Your task to perform on an android device: see creations saved in the google photos Image 0: 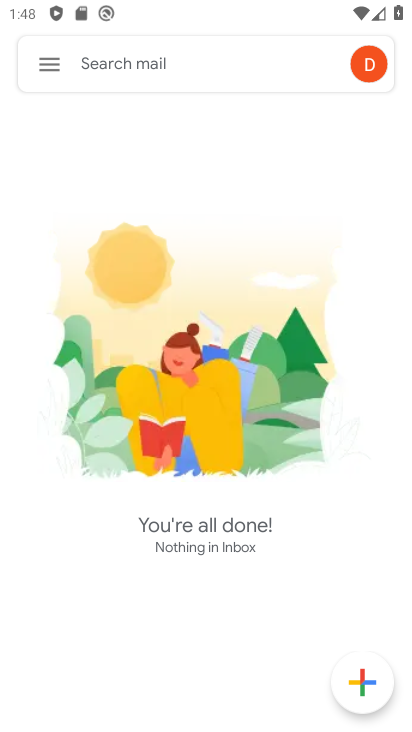
Step 0: press home button
Your task to perform on an android device: see creations saved in the google photos Image 1: 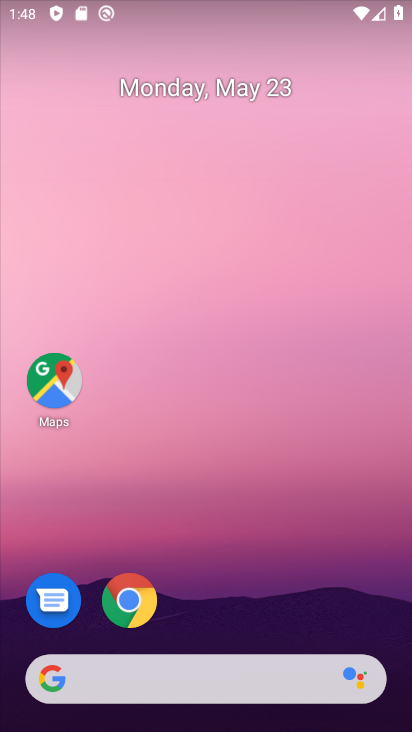
Step 1: drag from (281, 619) to (283, 268)
Your task to perform on an android device: see creations saved in the google photos Image 2: 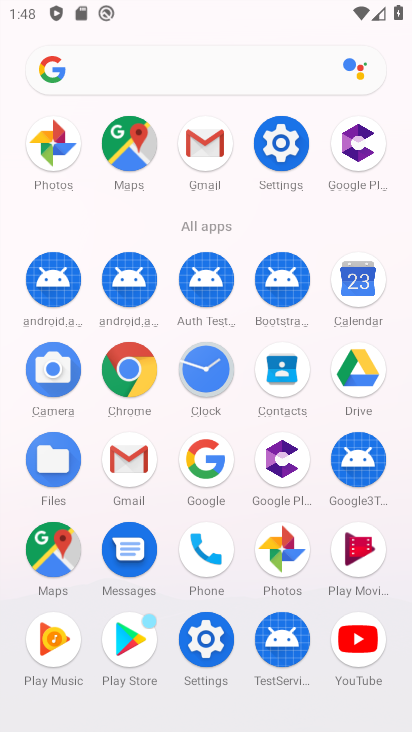
Step 2: click (291, 541)
Your task to perform on an android device: see creations saved in the google photos Image 3: 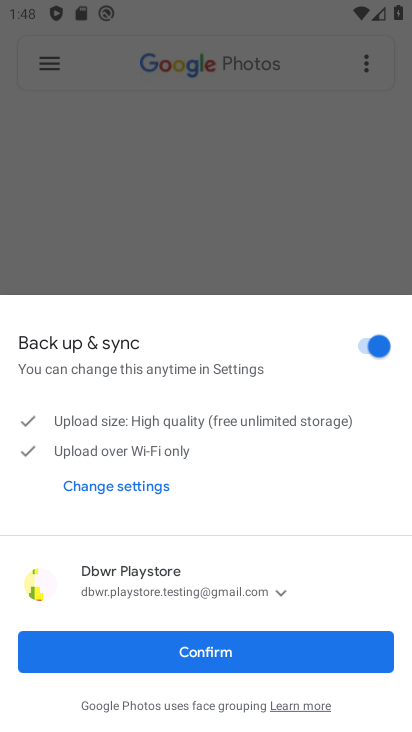
Step 3: click (283, 659)
Your task to perform on an android device: see creations saved in the google photos Image 4: 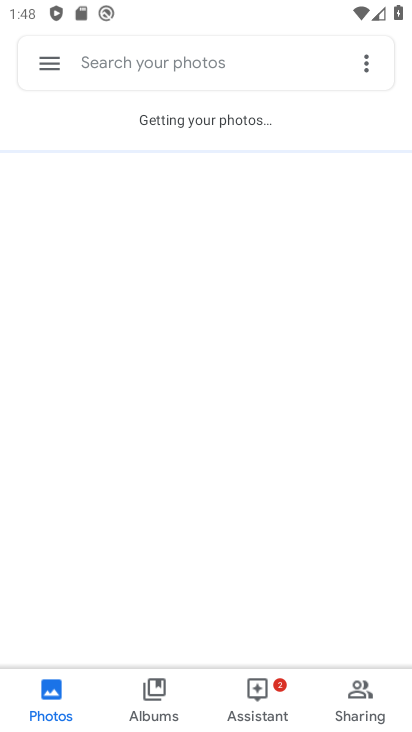
Step 4: click (148, 688)
Your task to perform on an android device: see creations saved in the google photos Image 5: 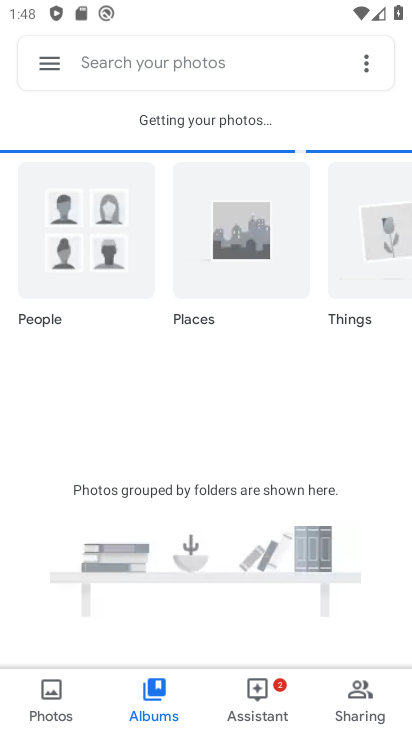
Step 5: task complete